Your task to perform on an android device: find photos in the google photos app Image 0: 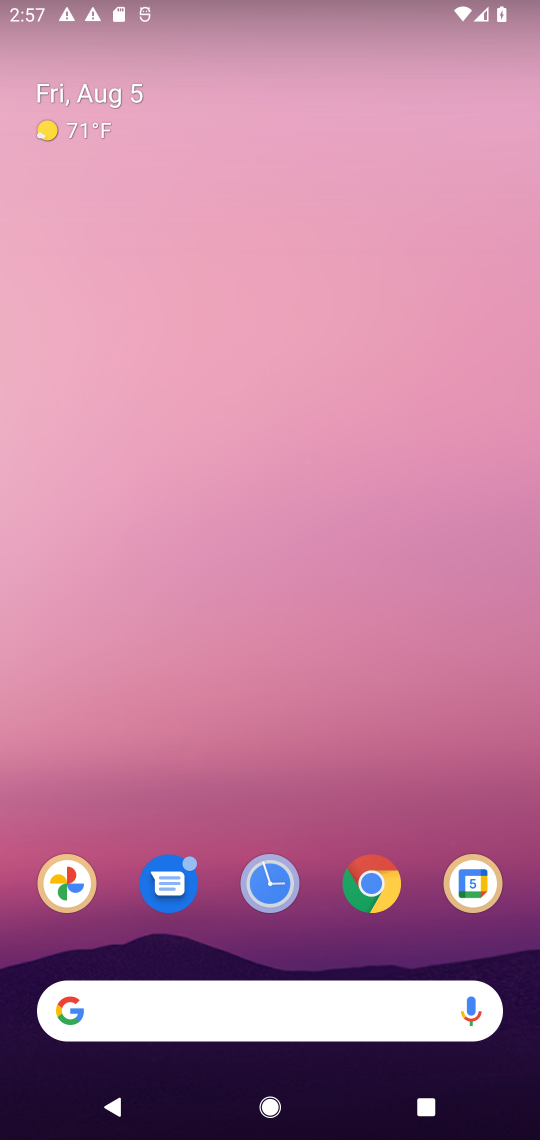
Step 0: press home button
Your task to perform on an android device: find photos in the google photos app Image 1: 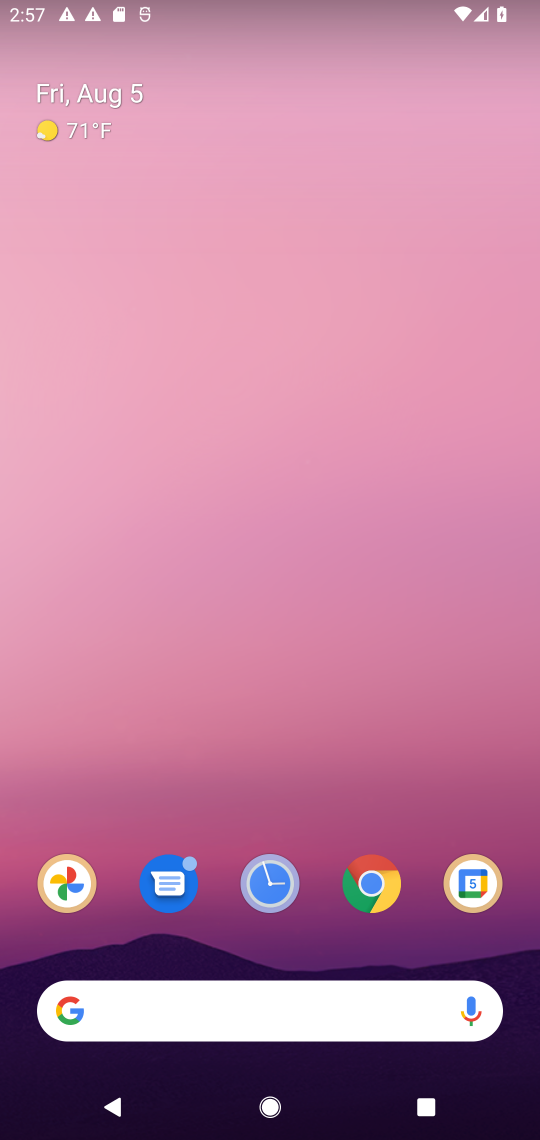
Step 1: click (63, 871)
Your task to perform on an android device: find photos in the google photos app Image 2: 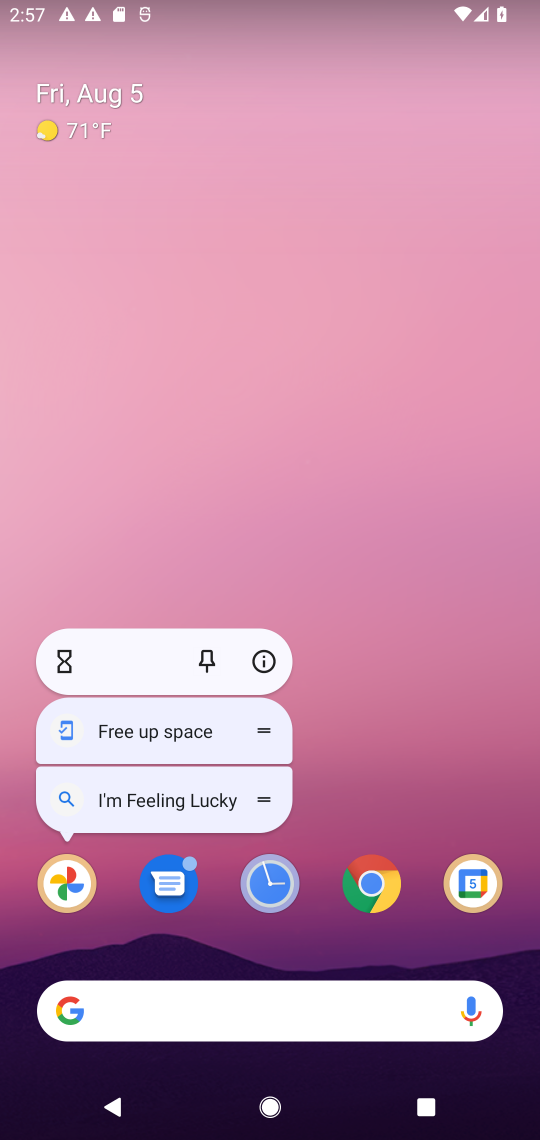
Step 2: click (63, 879)
Your task to perform on an android device: find photos in the google photos app Image 3: 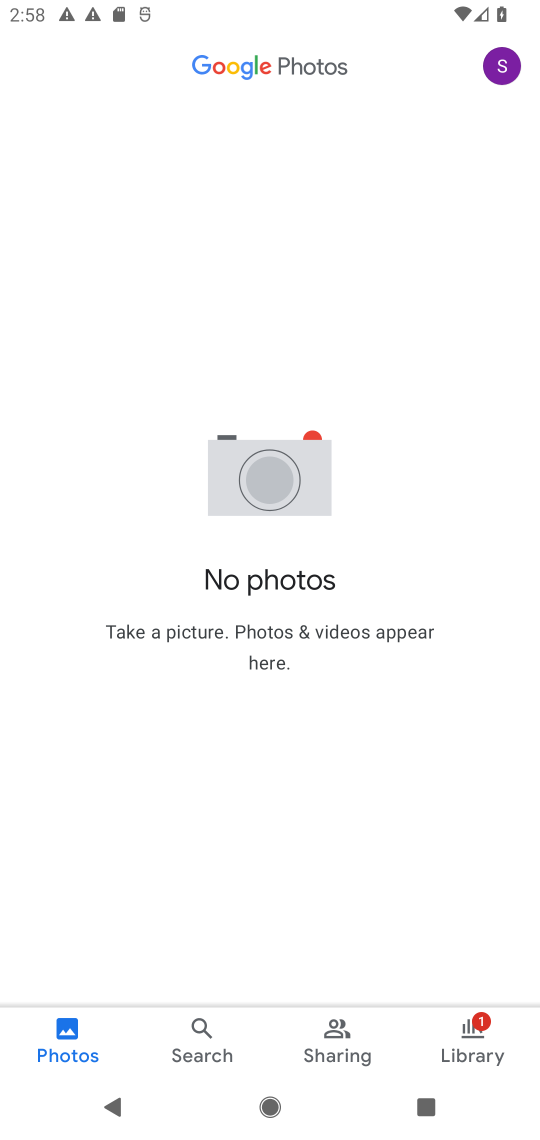
Step 3: task complete